Your task to perform on an android device: Turn on the flashlight Image 0: 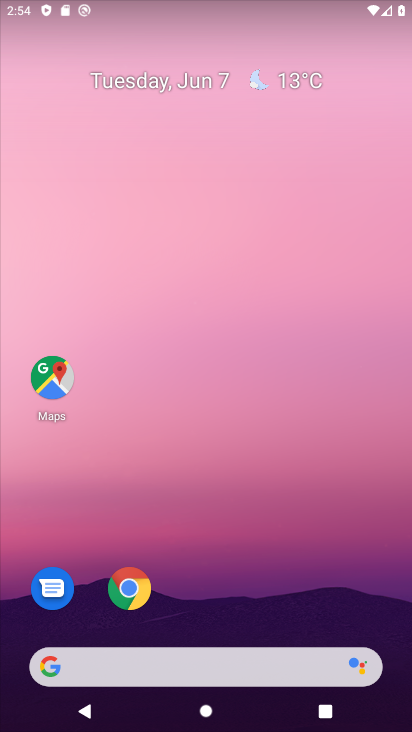
Step 0: drag from (232, 0) to (268, 495)
Your task to perform on an android device: Turn on the flashlight Image 1: 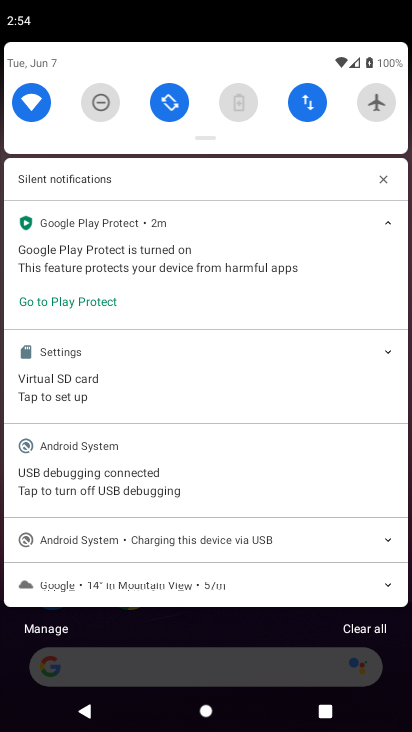
Step 1: click (214, 141)
Your task to perform on an android device: Turn on the flashlight Image 2: 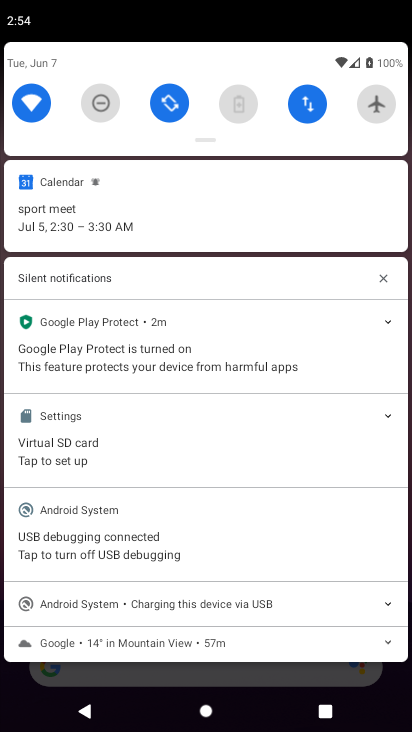
Step 2: task complete